Your task to perform on an android device: Open Google Chrome and click the shortcut for Amazon.com Image 0: 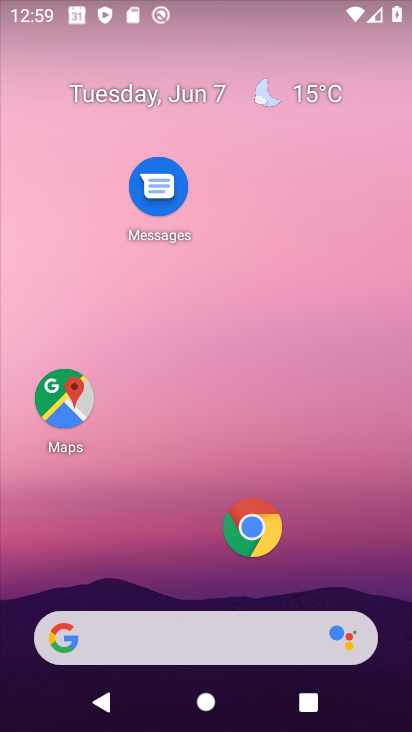
Step 0: click (178, 374)
Your task to perform on an android device: Open Google Chrome and click the shortcut for Amazon.com Image 1: 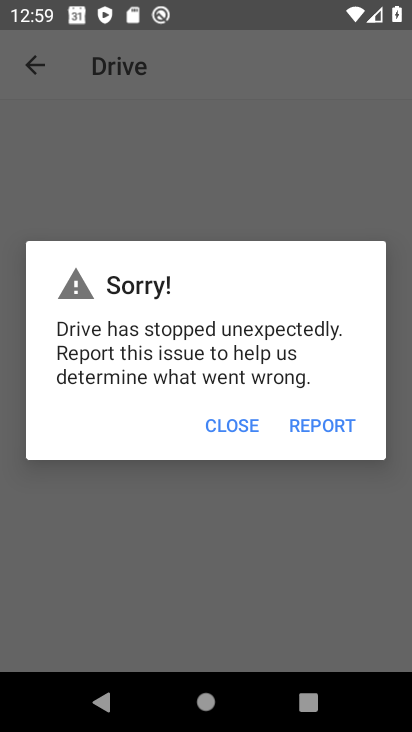
Step 1: press home button
Your task to perform on an android device: Open Google Chrome and click the shortcut for Amazon.com Image 2: 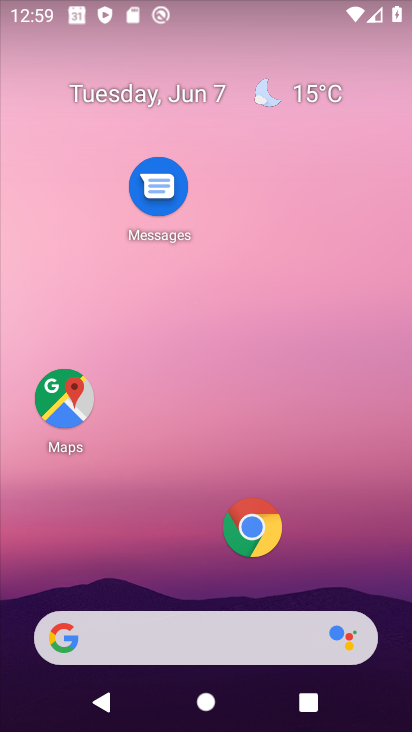
Step 2: click (240, 536)
Your task to perform on an android device: Open Google Chrome and click the shortcut for Amazon.com Image 3: 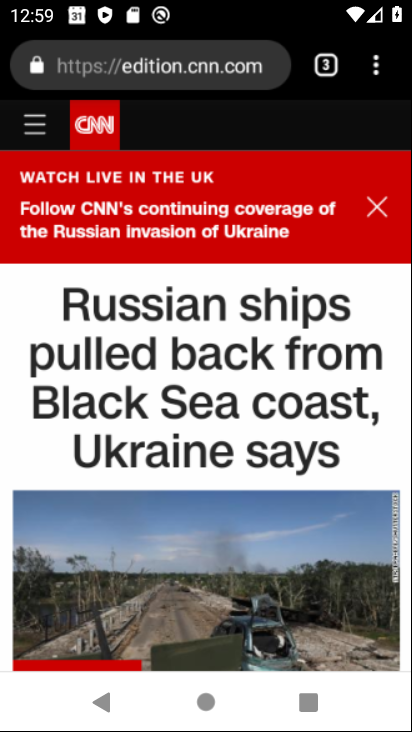
Step 3: click (312, 69)
Your task to perform on an android device: Open Google Chrome and click the shortcut for Amazon.com Image 4: 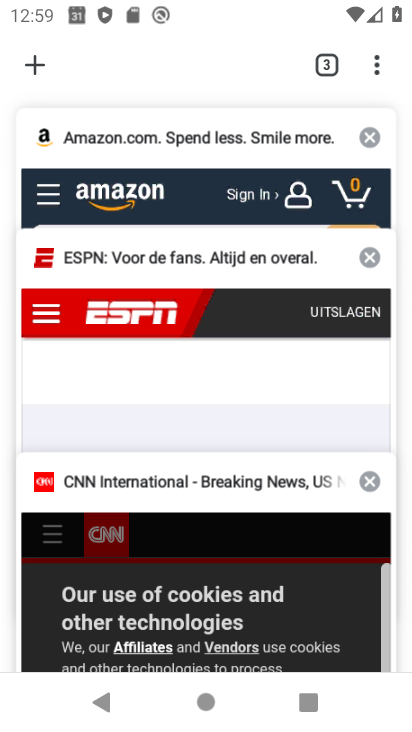
Step 4: click (242, 229)
Your task to perform on an android device: Open Google Chrome and click the shortcut for Amazon.com Image 5: 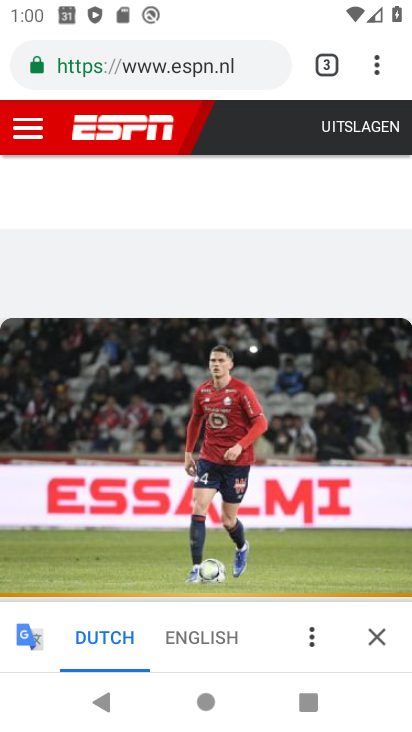
Step 5: click (336, 65)
Your task to perform on an android device: Open Google Chrome and click the shortcut for Amazon.com Image 6: 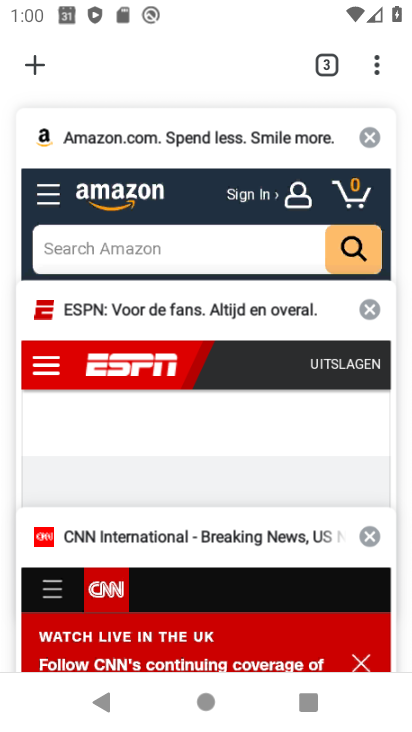
Step 6: click (366, 306)
Your task to perform on an android device: Open Google Chrome and click the shortcut for Amazon.com Image 7: 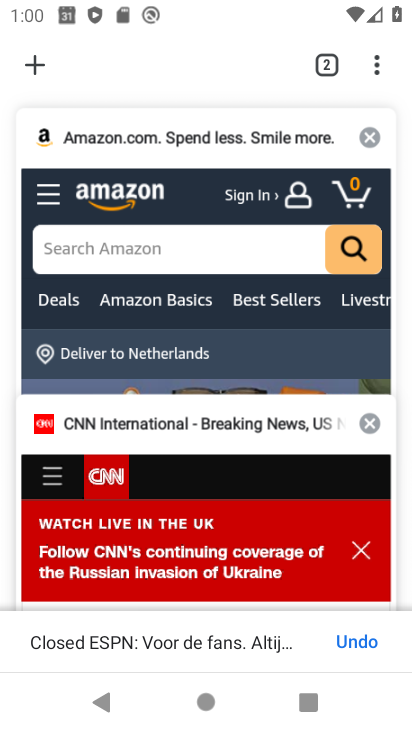
Step 7: click (372, 420)
Your task to perform on an android device: Open Google Chrome and click the shortcut for Amazon.com Image 8: 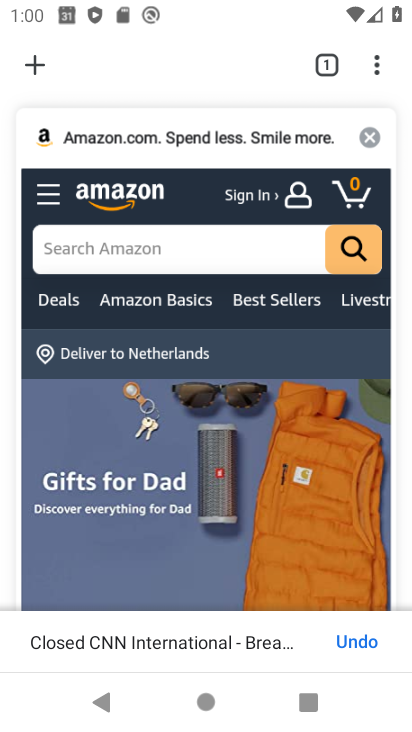
Step 8: click (256, 405)
Your task to perform on an android device: Open Google Chrome and click the shortcut for Amazon.com Image 9: 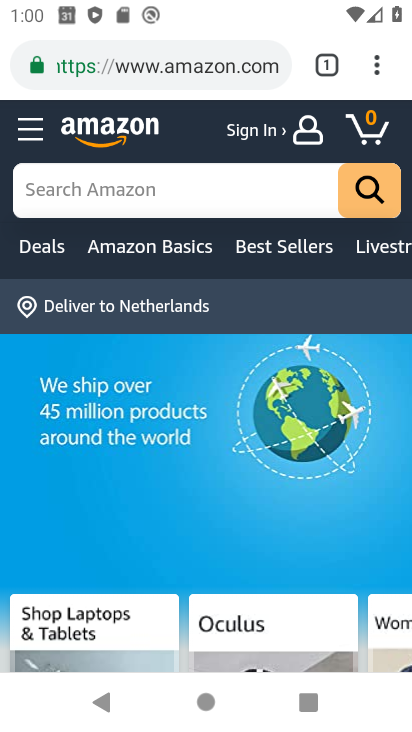
Step 9: task complete